Your task to perform on an android device: open app "Speedtest by Ookla" Image 0: 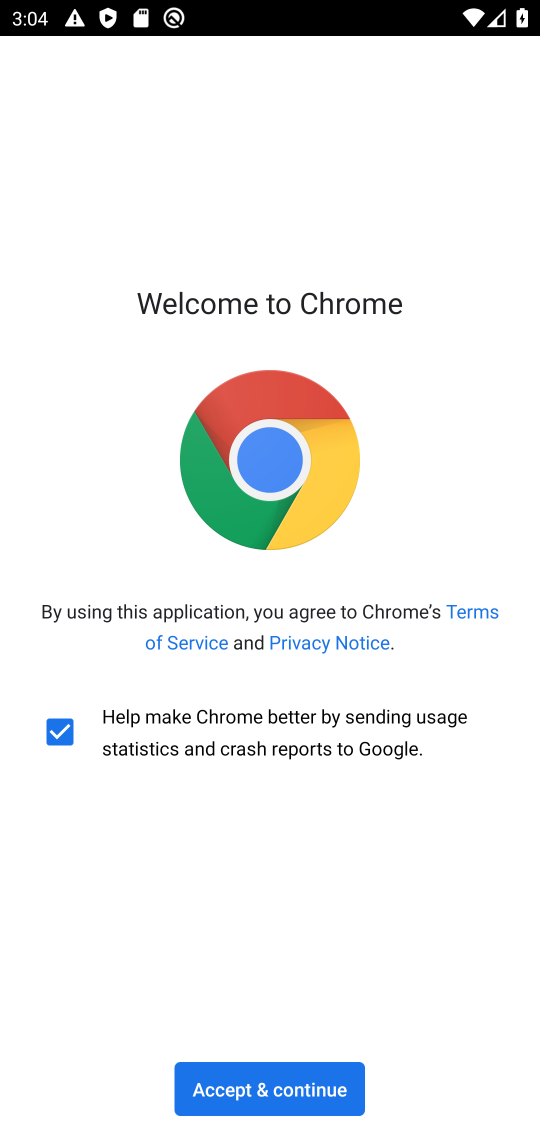
Step 0: press back button
Your task to perform on an android device: open app "Speedtest by Ookla" Image 1: 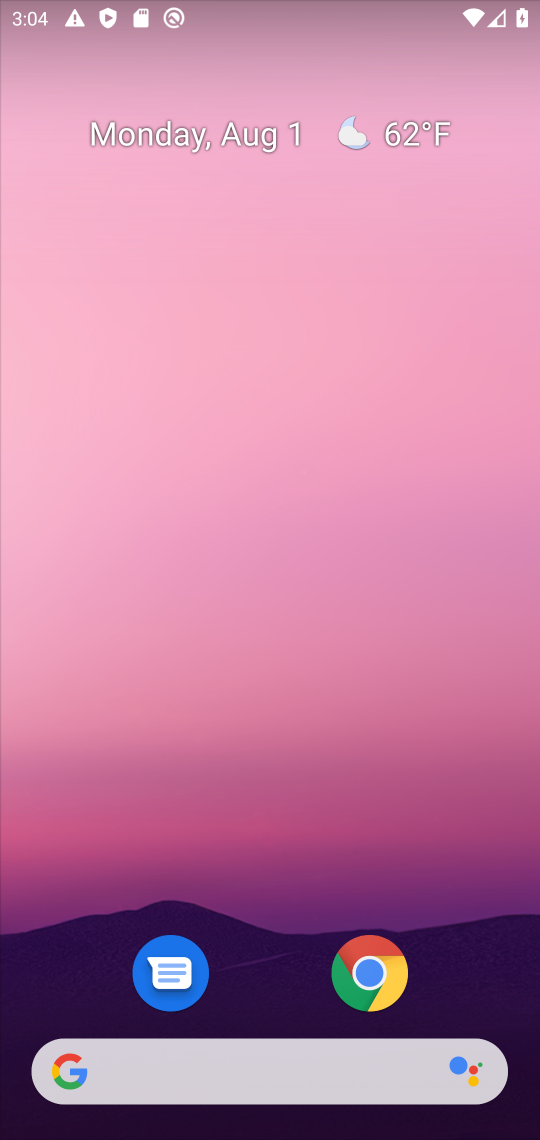
Step 1: drag from (289, 933) to (170, 278)
Your task to perform on an android device: open app "Speedtest by Ookla" Image 2: 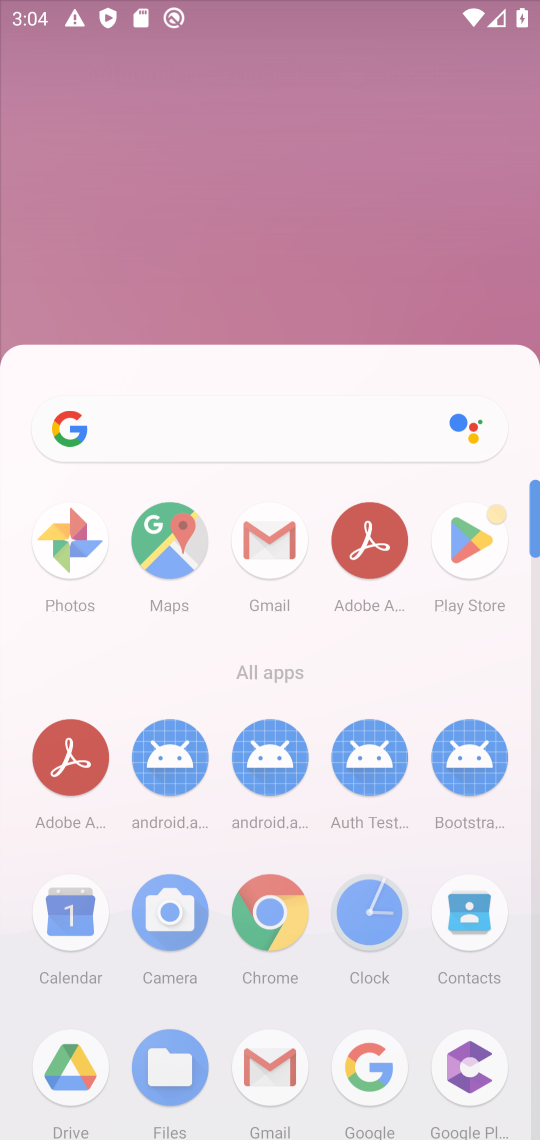
Step 2: click (218, 153)
Your task to perform on an android device: open app "Speedtest by Ookla" Image 3: 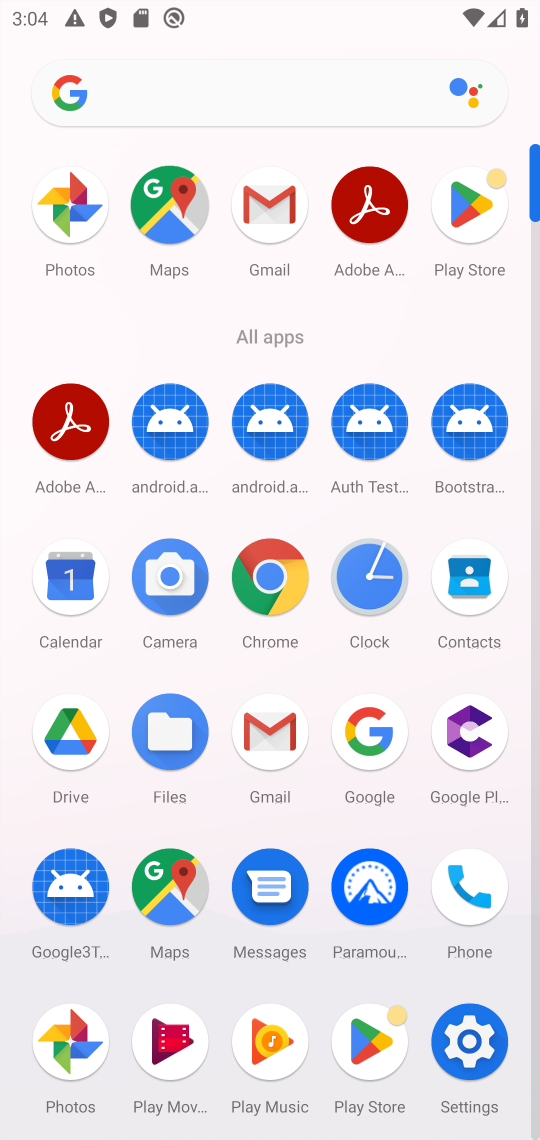
Step 3: drag from (269, 574) to (200, 193)
Your task to perform on an android device: open app "Speedtest by Ookla" Image 4: 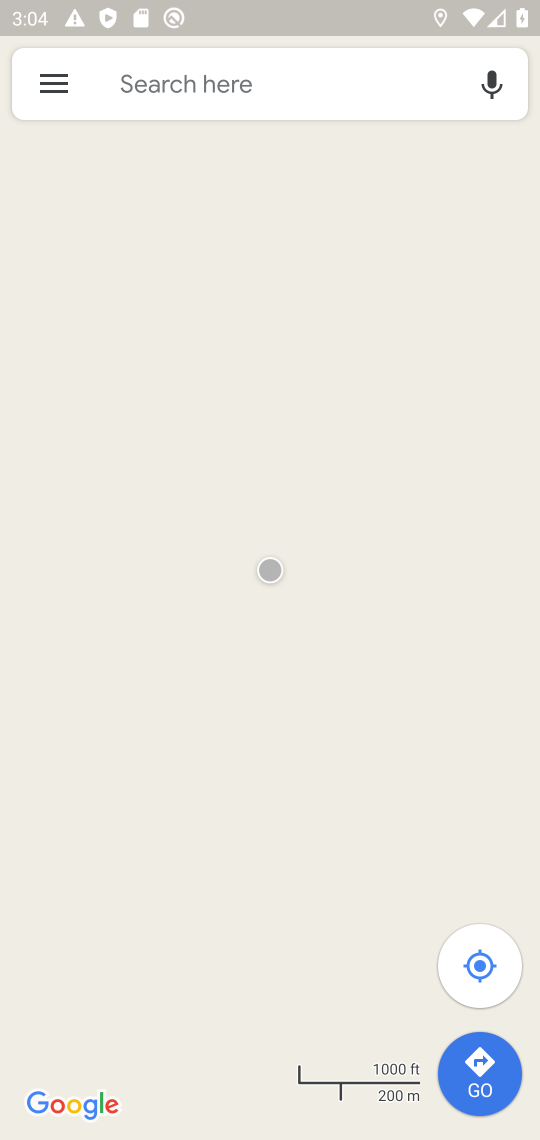
Step 4: press back button
Your task to perform on an android device: open app "Speedtest by Ookla" Image 5: 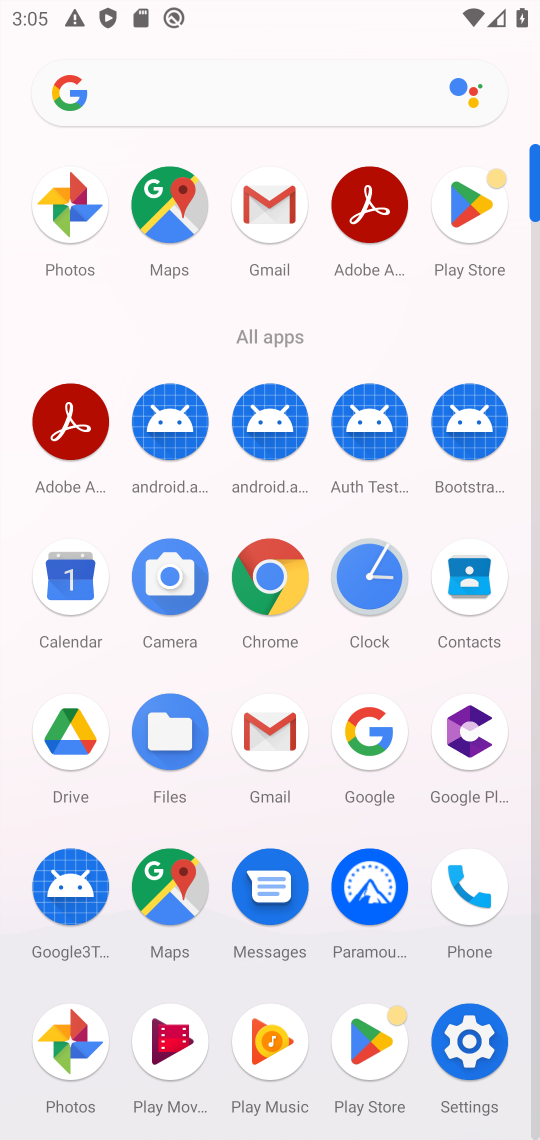
Step 5: click (359, 1047)
Your task to perform on an android device: open app "Speedtest by Ookla" Image 6: 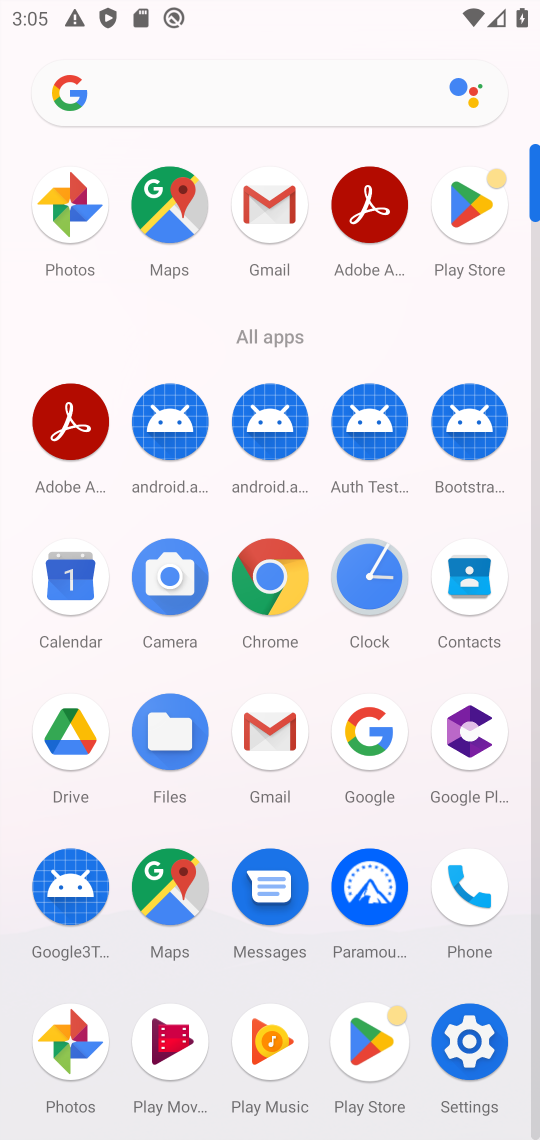
Step 6: click (355, 1042)
Your task to perform on an android device: open app "Speedtest by Ookla" Image 7: 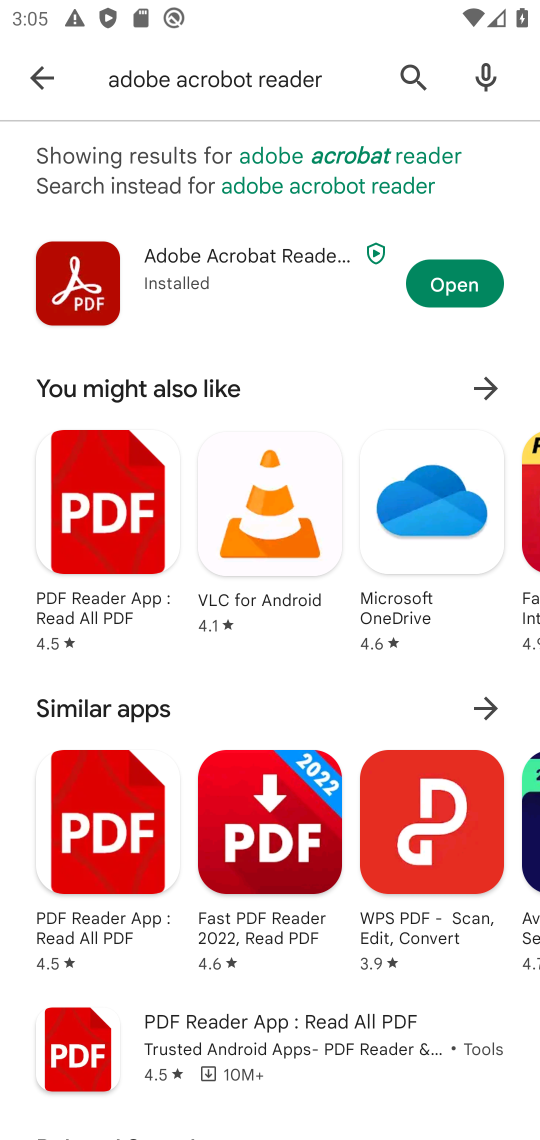
Step 7: click (39, 77)
Your task to perform on an android device: open app "Speedtest by Ookla" Image 8: 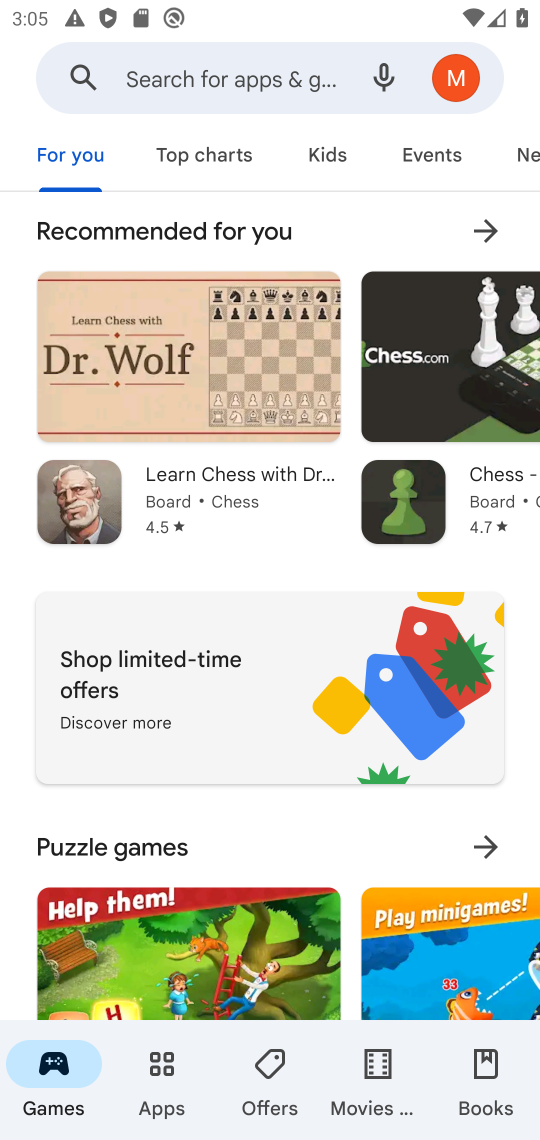
Step 8: click (157, 72)
Your task to perform on an android device: open app "Speedtest by Ookla" Image 9: 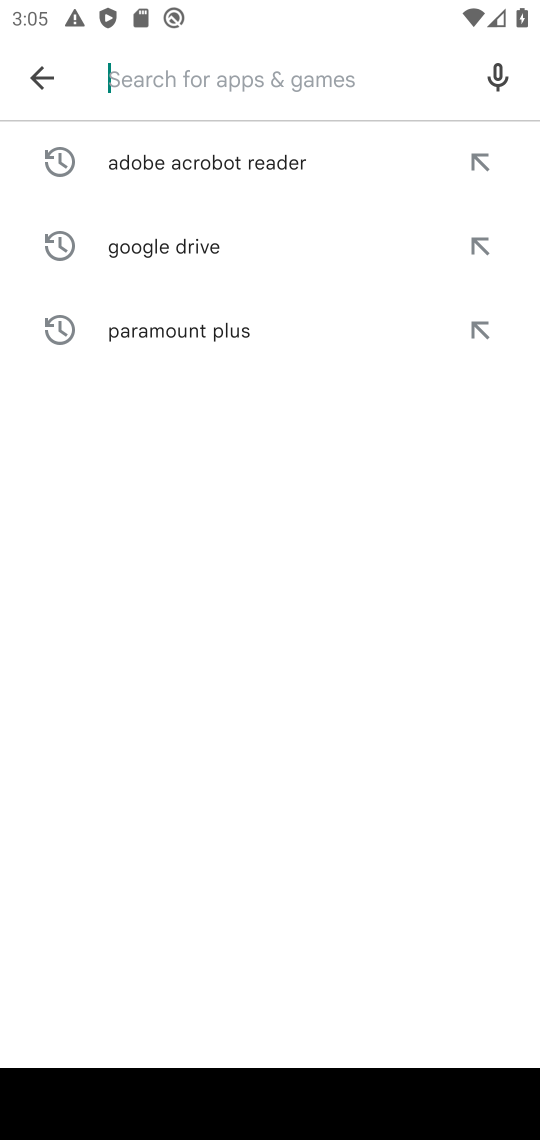
Step 9: type "speedtest by ookla"
Your task to perform on an android device: open app "Speedtest by Ookla" Image 10: 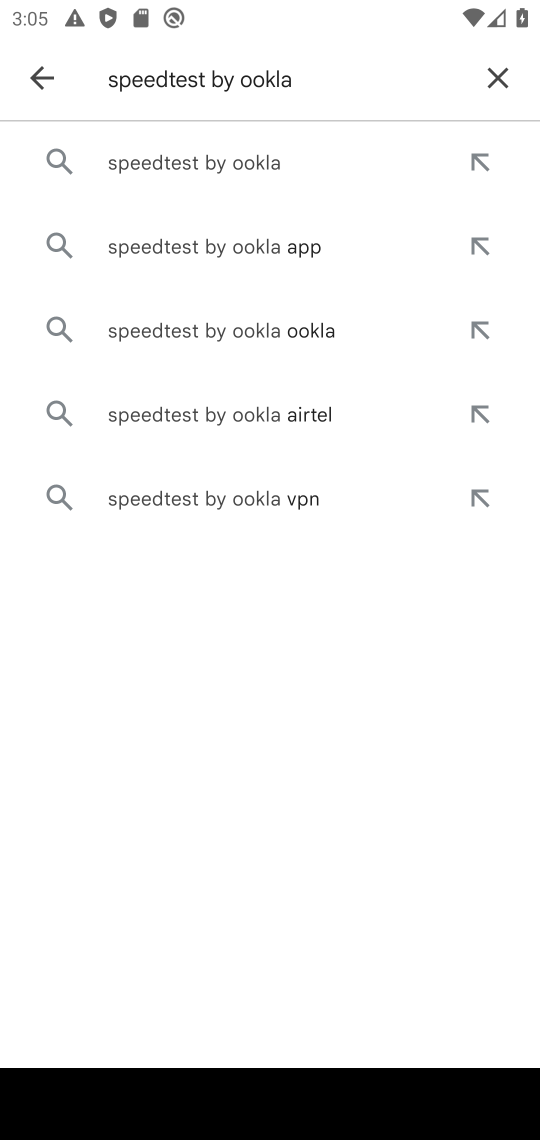
Step 10: click (203, 174)
Your task to perform on an android device: open app "Speedtest by Ookla" Image 11: 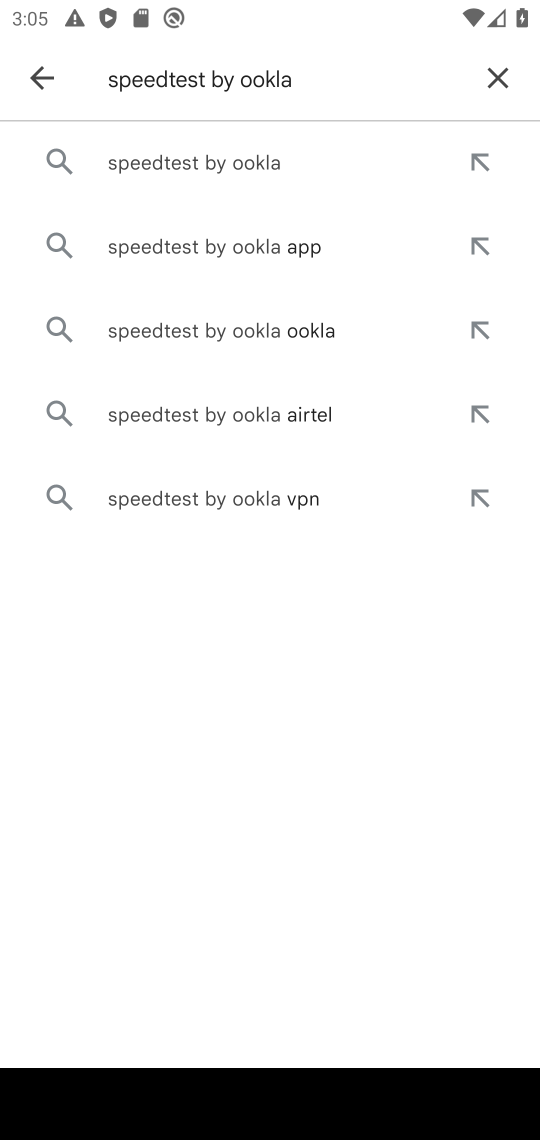
Step 11: click (463, 159)
Your task to perform on an android device: open app "Speedtest by Ookla" Image 12: 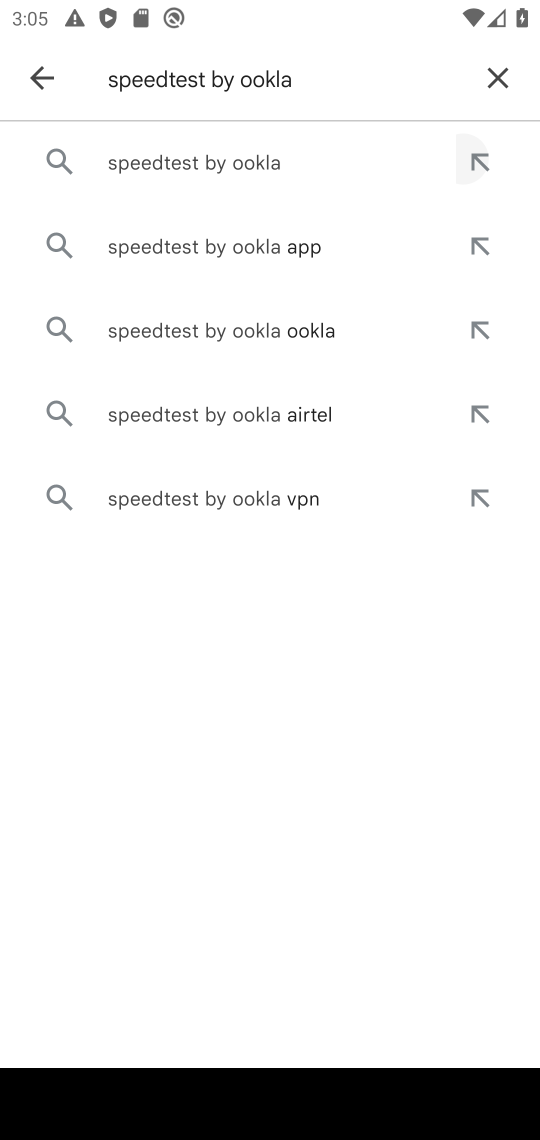
Step 12: click (465, 153)
Your task to perform on an android device: open app "Speedtest by Ookla" Image 13: 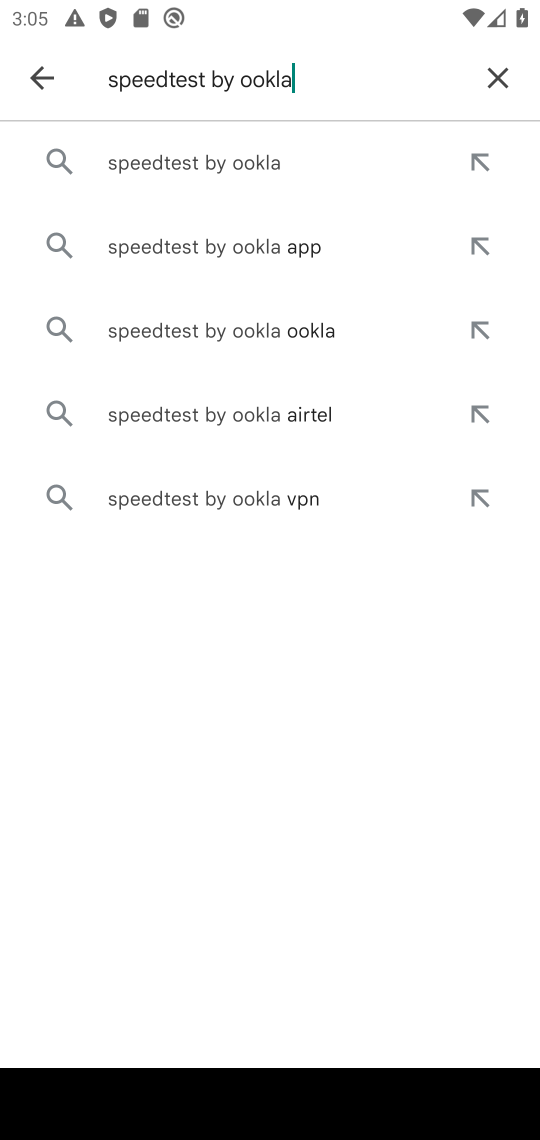
Step 13: click (454, 144)
Your task to perform on an android device: open app "Speedtest by Ookla" Image 14: 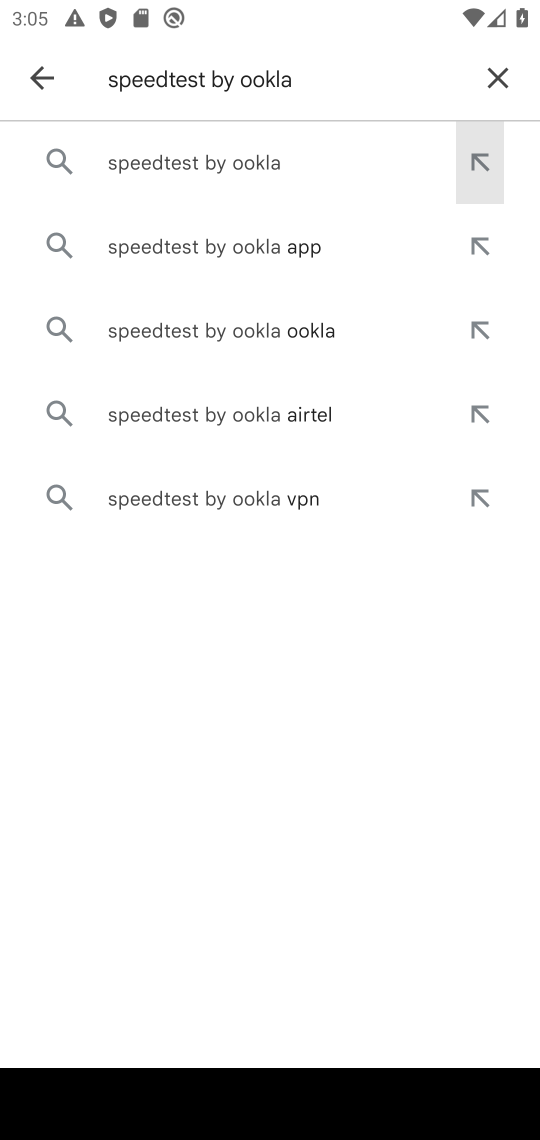
Step 14: click (491, 168)
Your task to perform on an android device: open app "Speedtest by Ookla" Image 15: 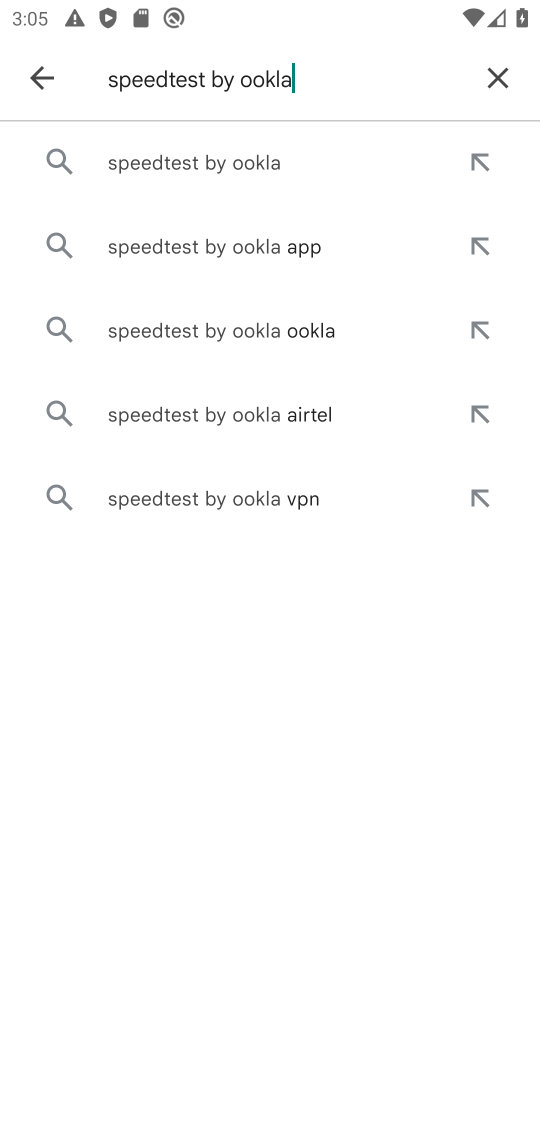
Step 15: click (491, 168)
Your task to perform on an android device: open app "Speedtest by Ookla" Image 16: 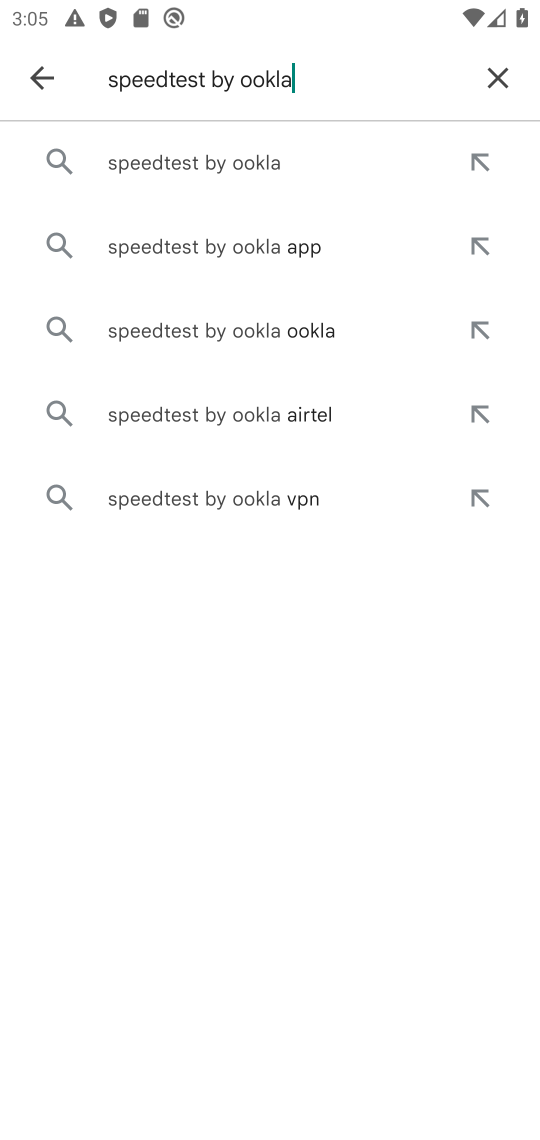
Step 16: click (132, 153)
Your task to perform on an android device: open app "Speedtest by Ookla" Image 17: 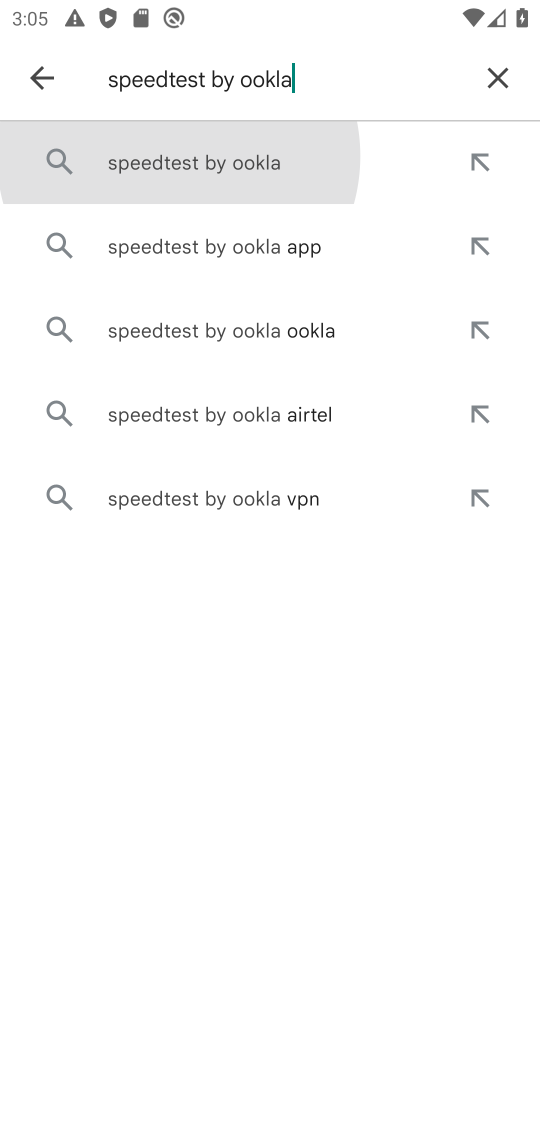
Step 17: click (192, 168)
Your task to perform on an android device: open app "Speedtest by Ookla" Image 18: 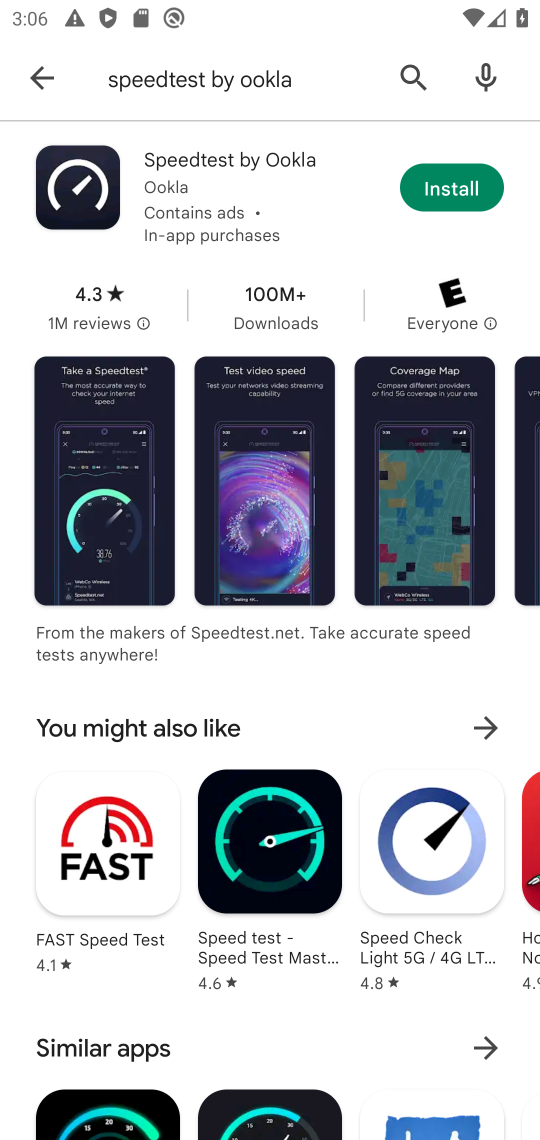
Step 18: click (432, 177)
Your task to perform on an android device: open app "Speedtest by Ookla" Image 19: 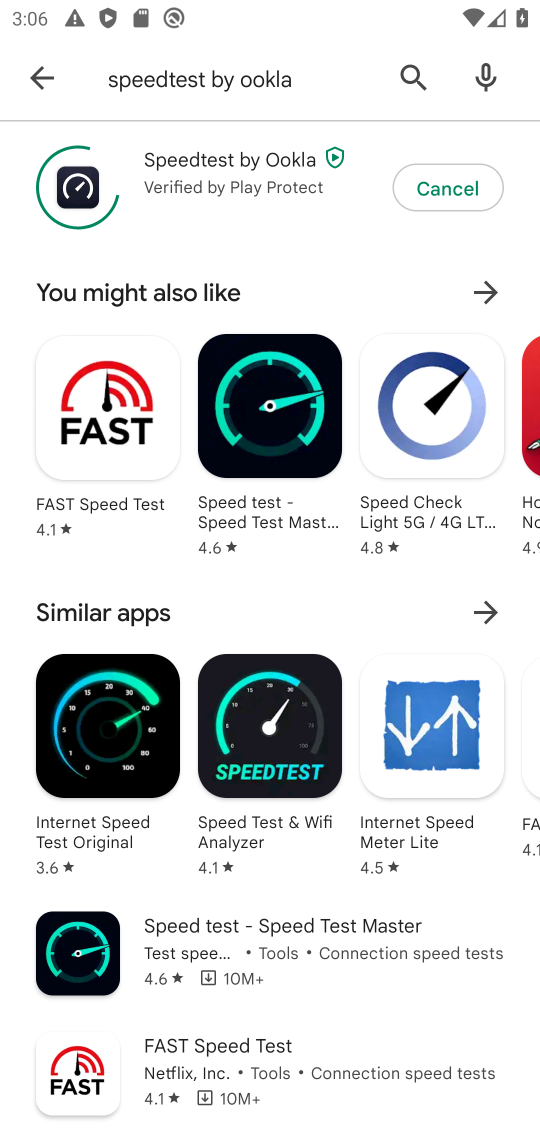
Step 19: click (435, 178)
Your task to perform on an android device: open app "Speedtest by Ookla" Image 20: 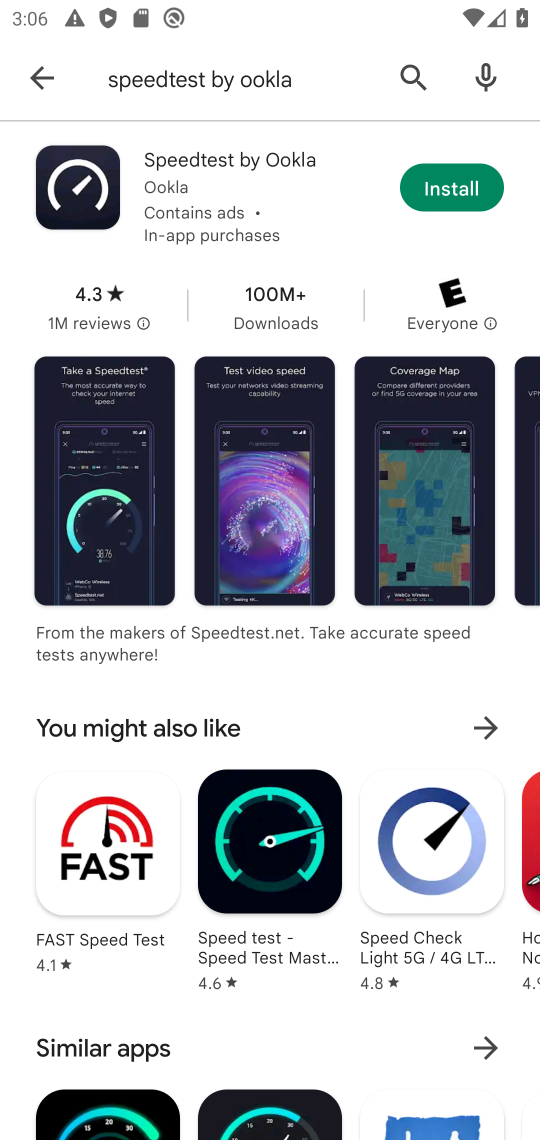
Step 20: click (452, 180)
Your task to perform on an android device: open app "Speedtest by Ookla" Image 21: 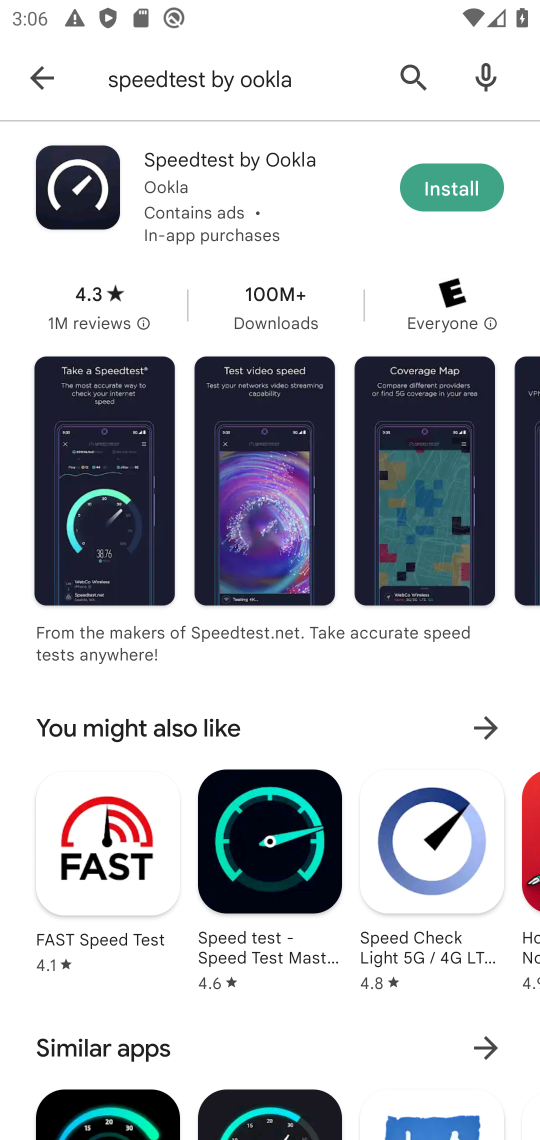
Step 21: click (450, 178)
Your task to perform on an android device: open app "Speedtest by Ookla" Image 22: 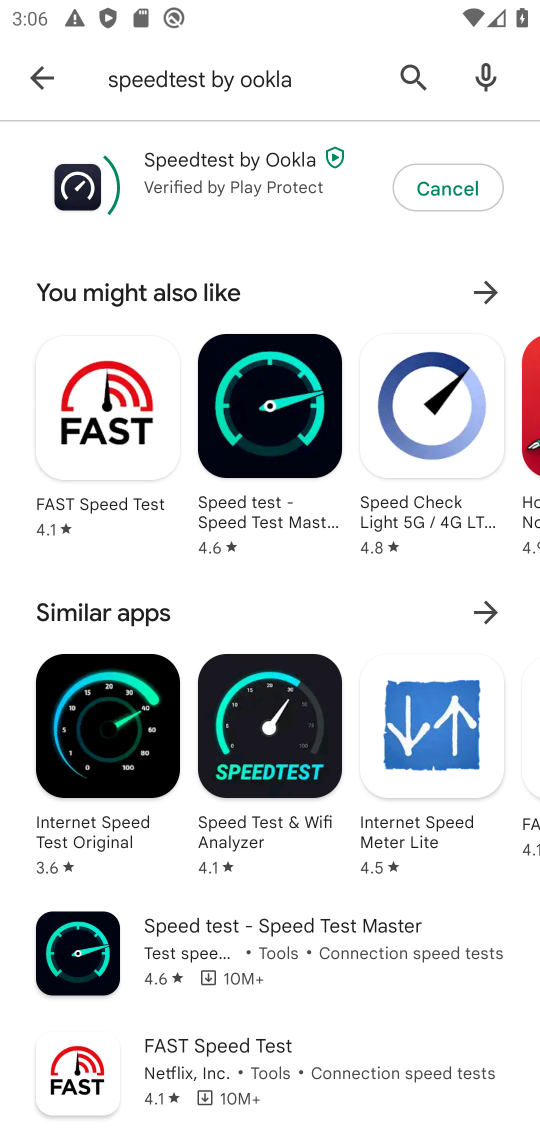
Step 22: click (450, 178)
Your task to perform on an android device: open app "Speedtest by Ookla" Image 23: 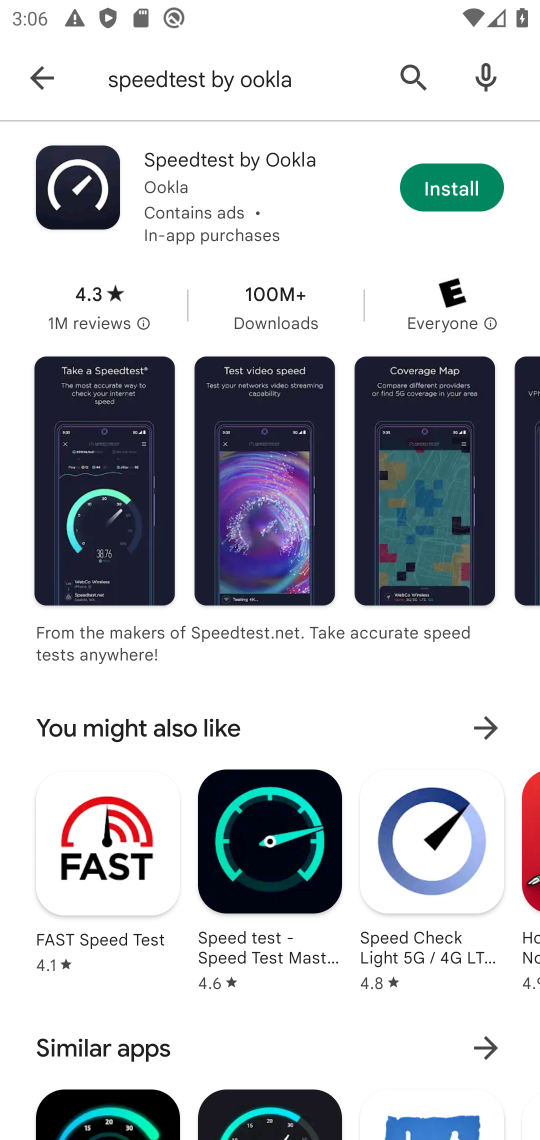
Step 23: click (480, 182)
Your task to perform on an android device: open app "Speedtest by Ookla" Image 24: 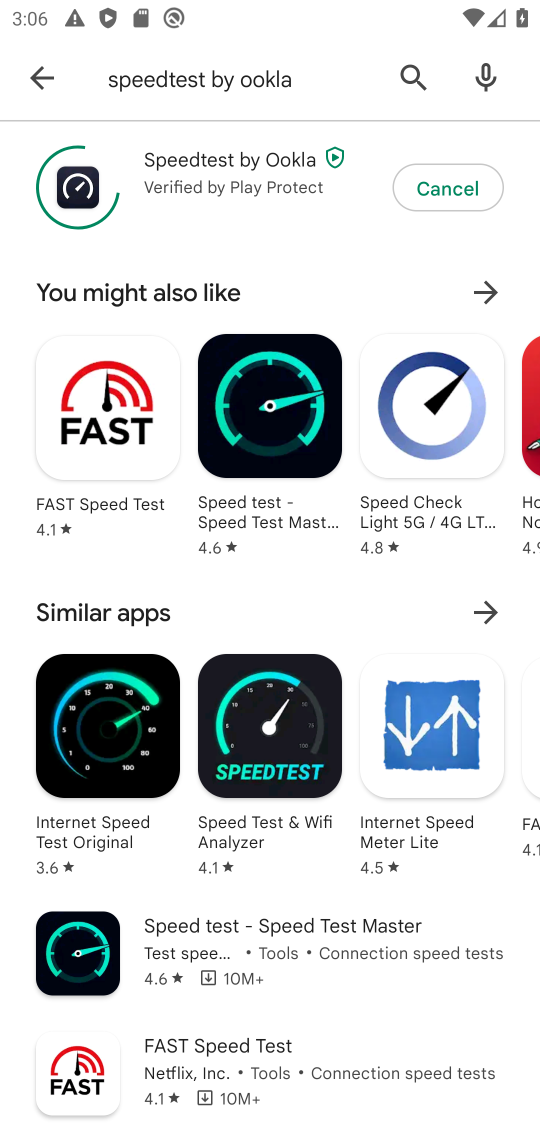
Step 24: click (477, 187)
Your task to perform on an android device: open app "Speedtest by Ookla" Image 25: 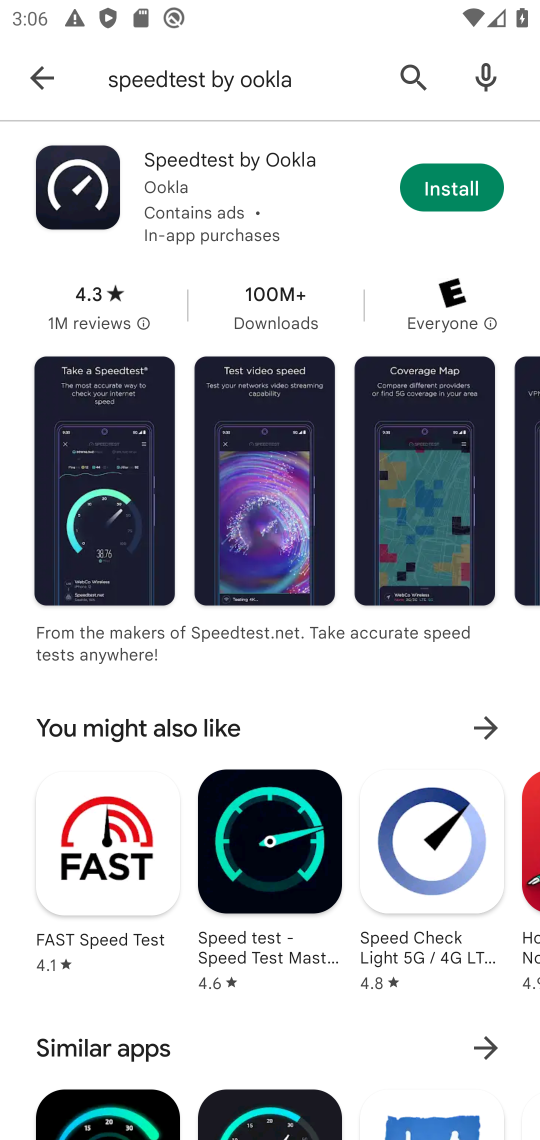
Step 25: click (455, 172)
Your task to perform on an android device: open app "Speedtest by Ookla" Image 26: 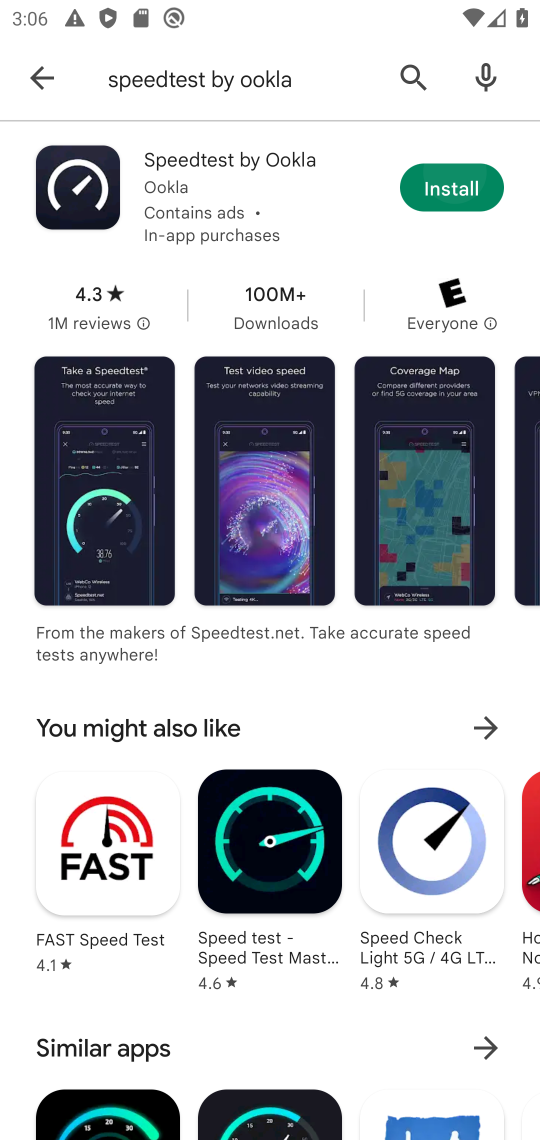
Step 26: click (451, 180)
Your task to perform on an android device: open app "Speedtest by Ookla" Image 27: 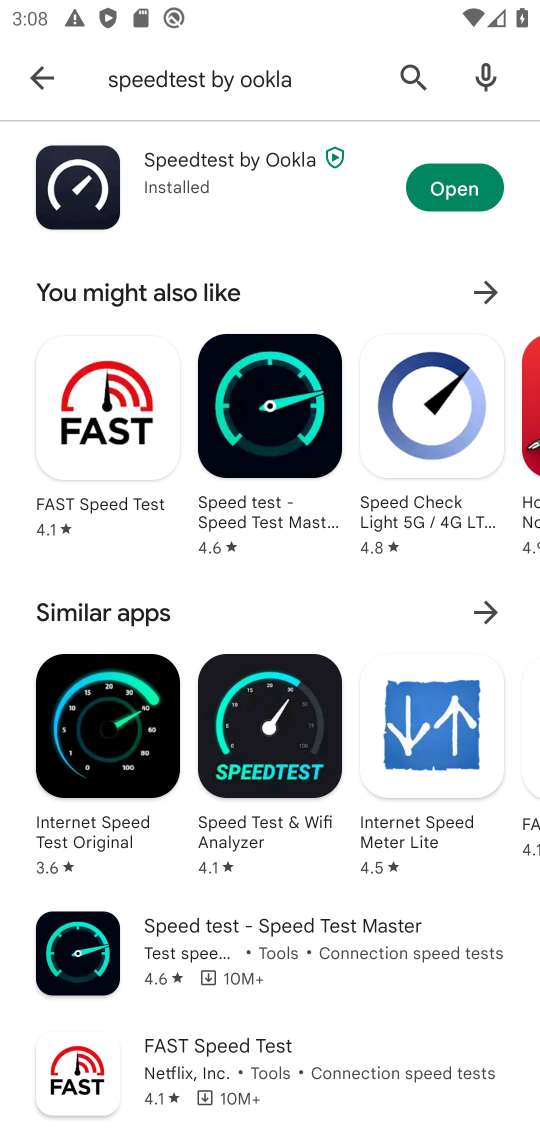
Step 27: click (461, 189)
Your task to perform on an android device: open app "Speedtest by Ookla" Image 28: 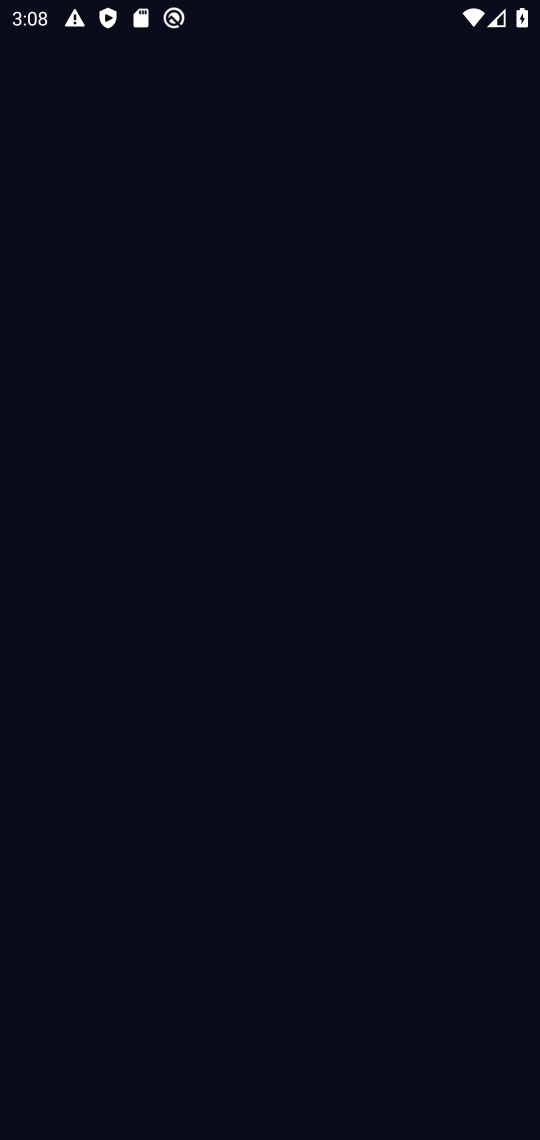
Step 28: task complete